Your task to perform on an android device: change notifications settings Image 0: 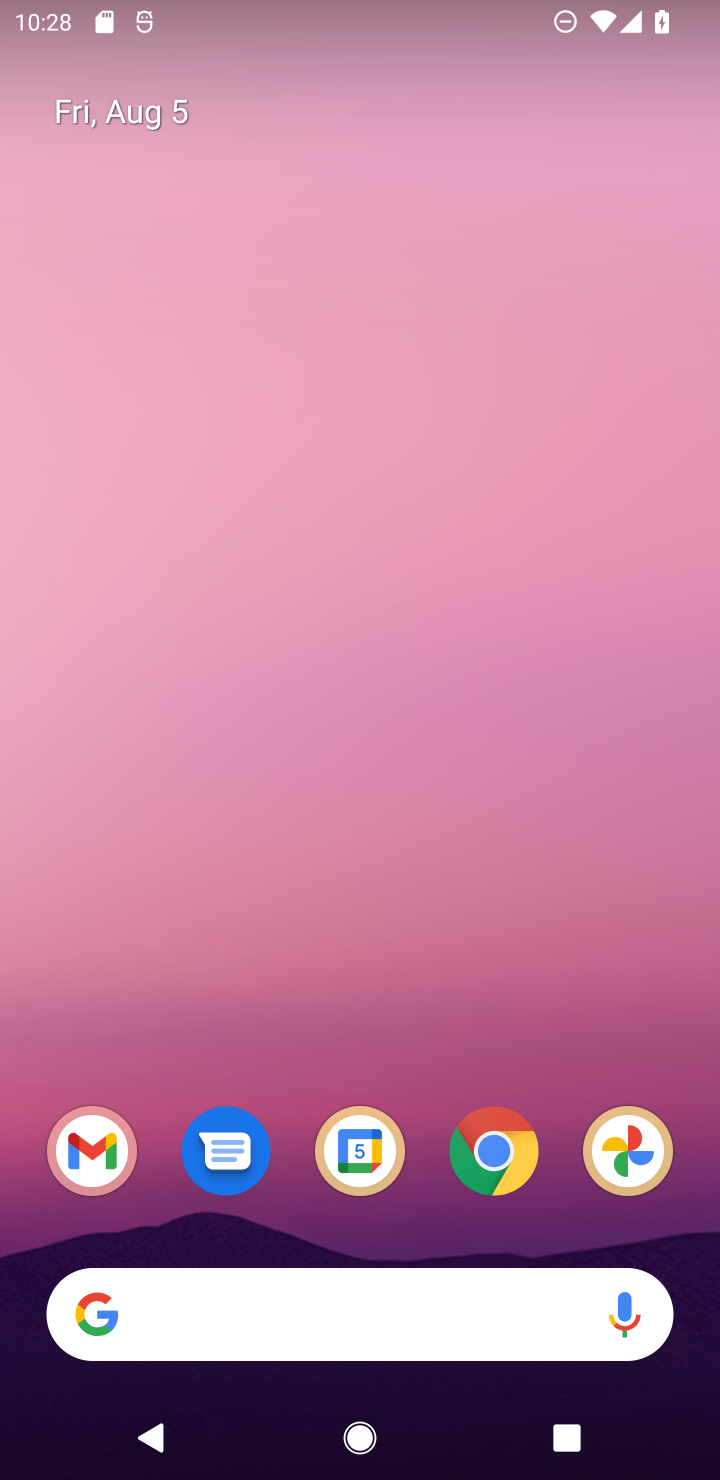
Step 0: drag from (344, 837) to (361, 305)
Your task to perform on an android device: change notifications settings Image 1: 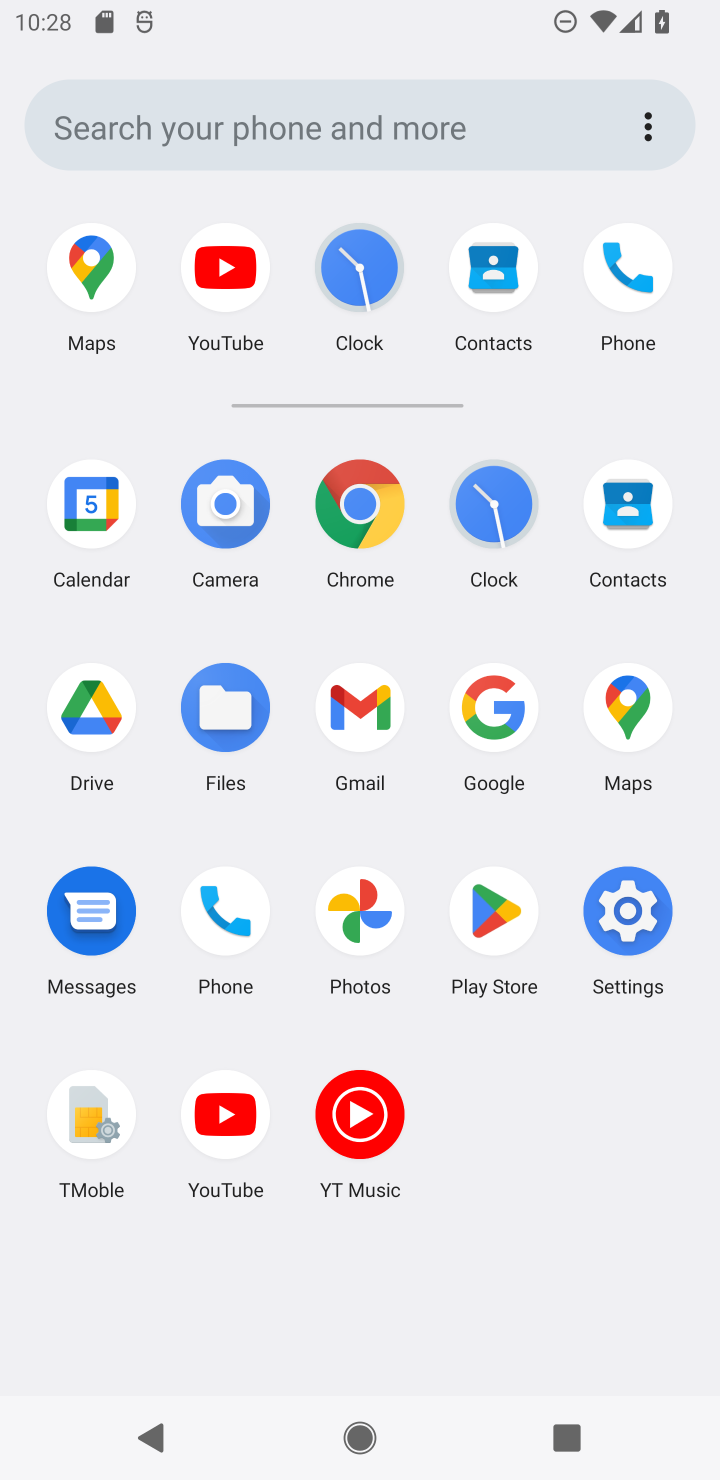
Step 1: click (633, 907)
Your task to perform on an android device: change notifications settings Image 2: 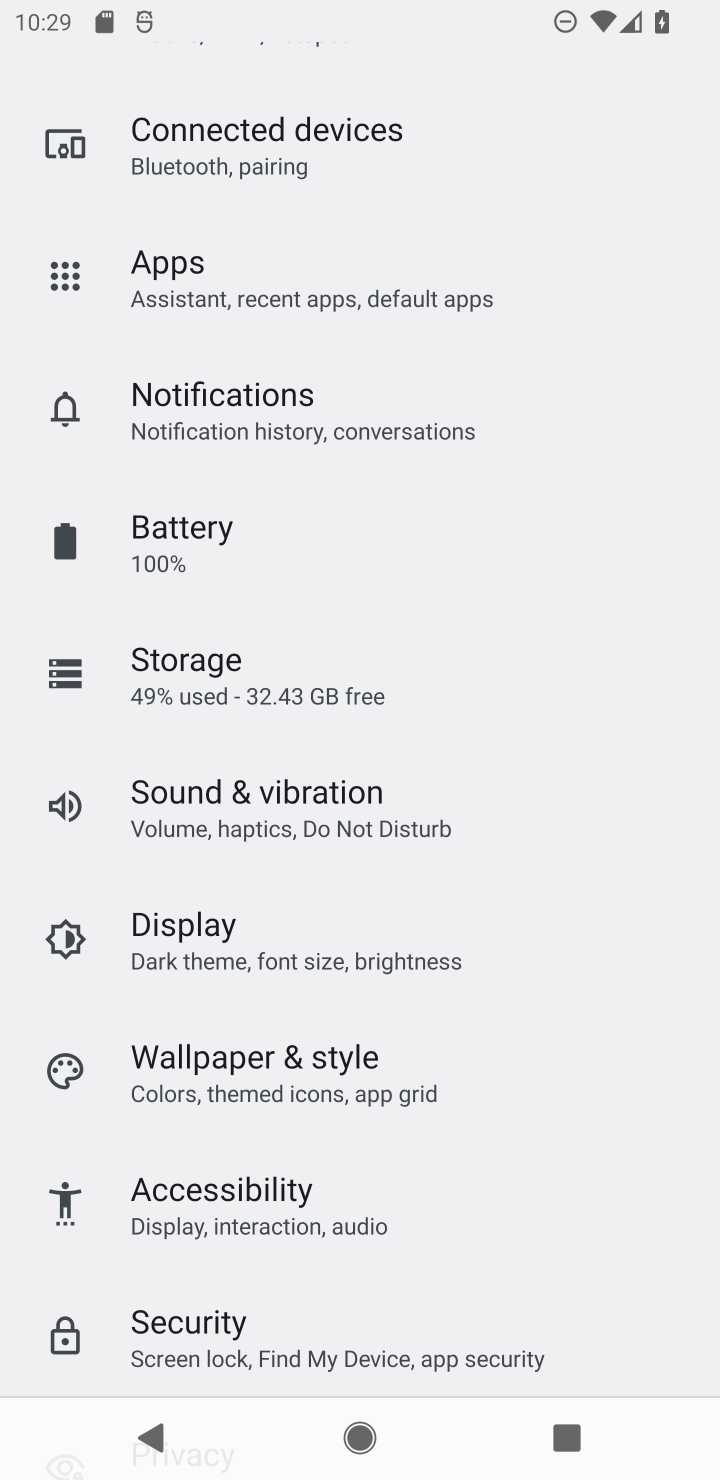
Step 2: click (255, 428)
Your task to perform on an android device: change notifications settings Image 3: 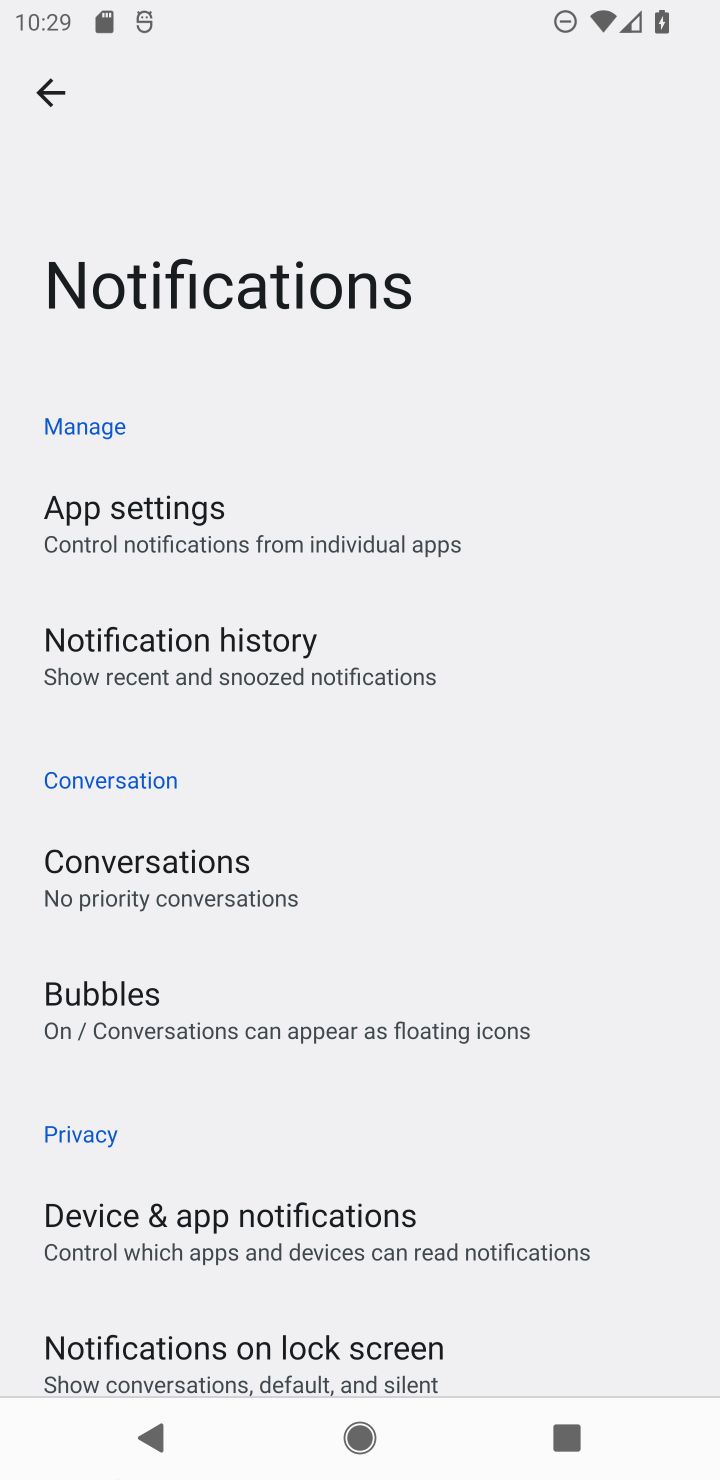
Step 3: click (313, 1352)
Your task to perform on an android device: change notifications settings Image 4: 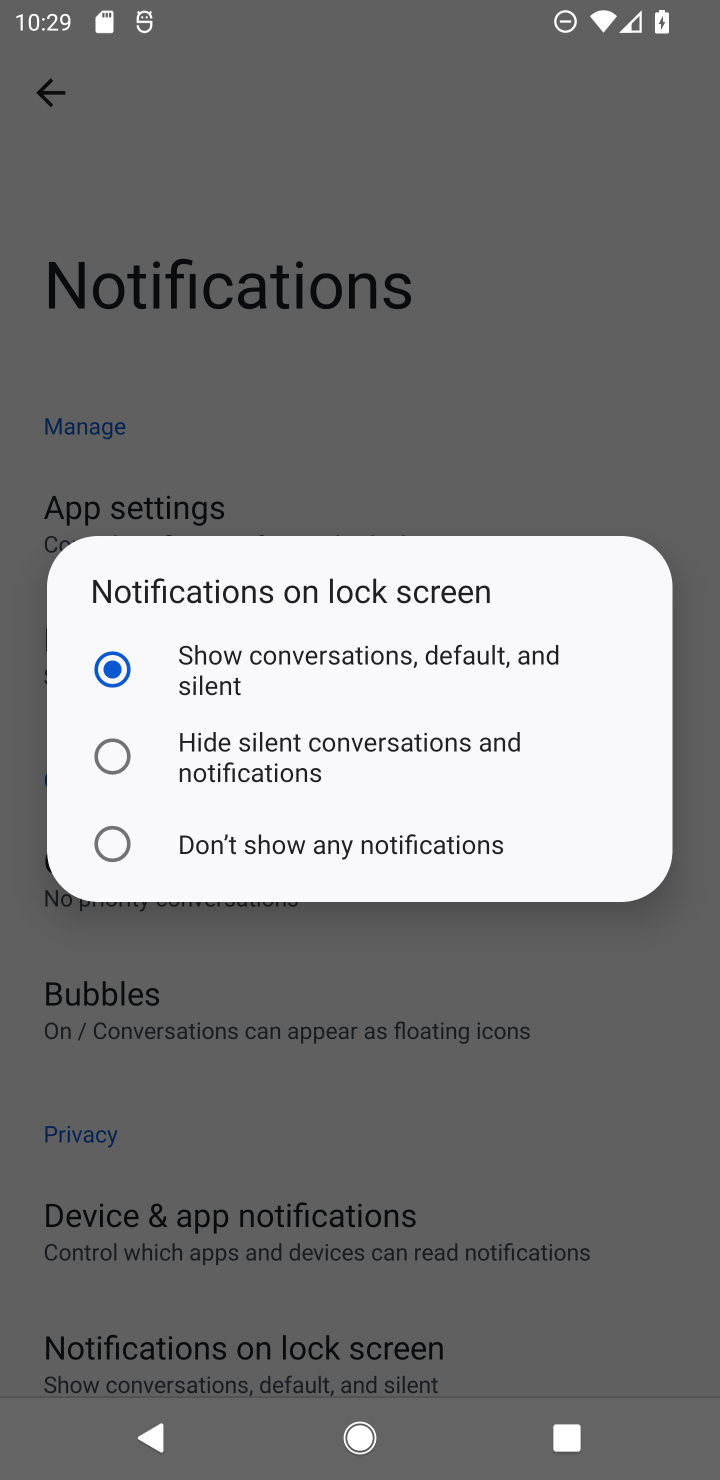
Step 4: click (119, 843)
Your task to perform on an android device: change notifications settings Image 5: 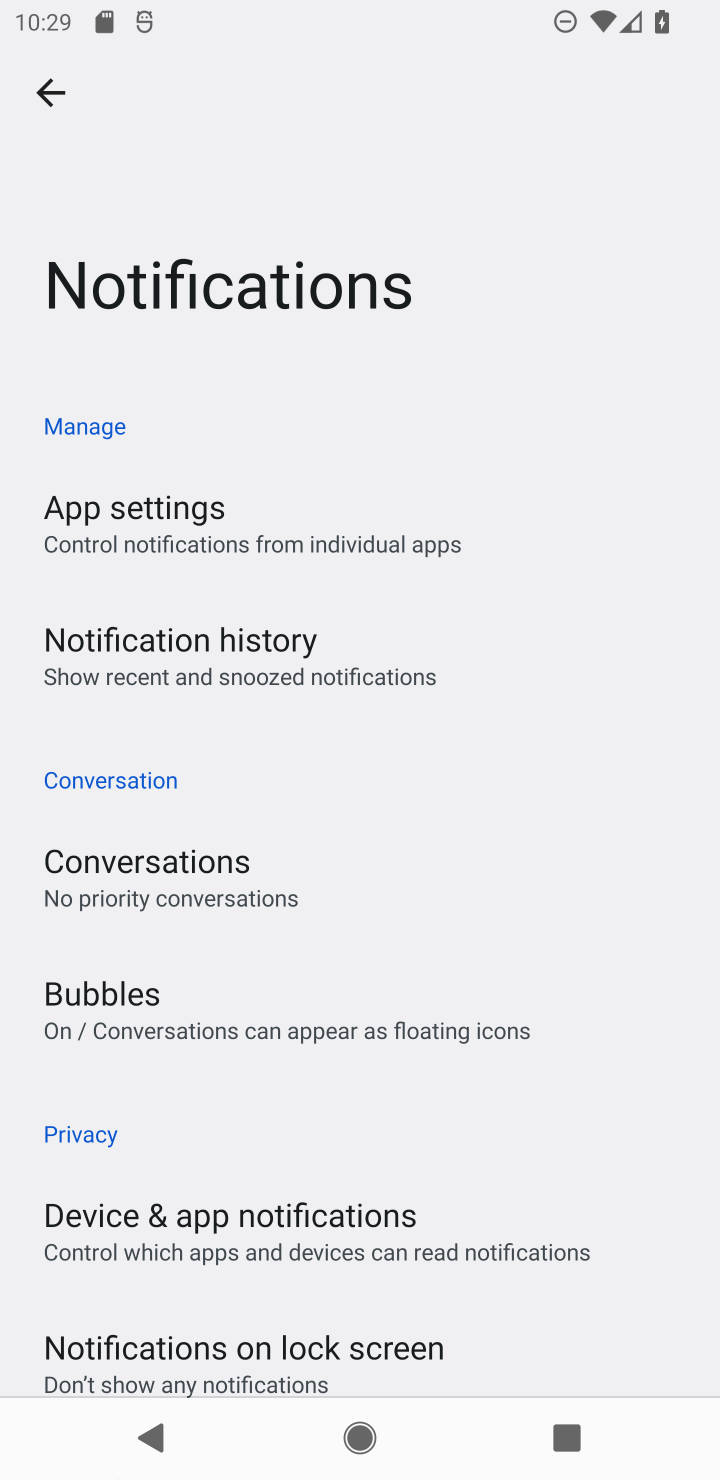
Step 5: task complete